Your task to perform on an android device: Open calendar and show me the second week of next month Image 0: 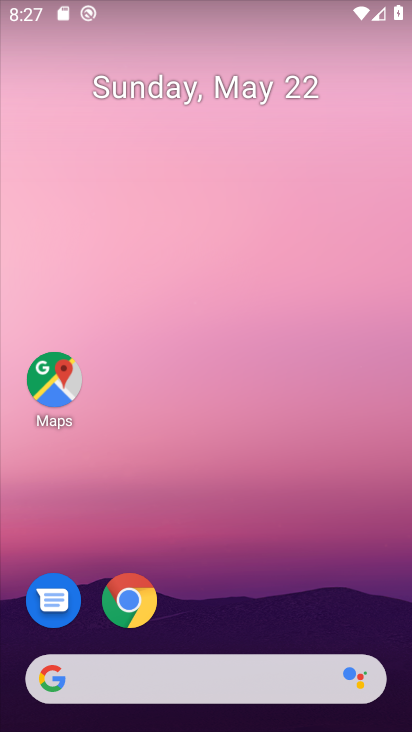
Step 0: drag from (263, 638) to (301, 261)
Your task to perform on an android device: Open calendar and show me the second week of next month Image 1: 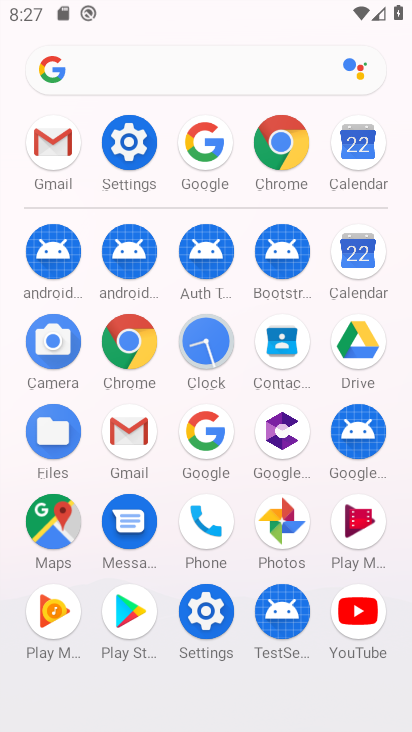
Step 1: click (359, 155)
Your task to perform on an android device: Open calendar and show me the second week of next month Image 2: 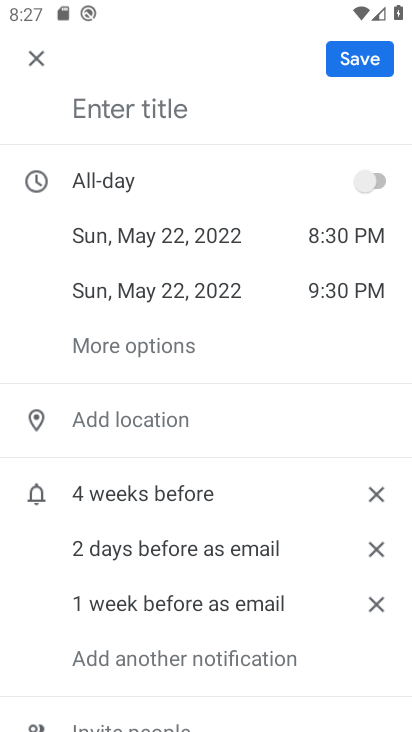
Step 2: click (35, 63)
Your task to perform on an android device: Open calendar and show me the second week of next month Image 3: 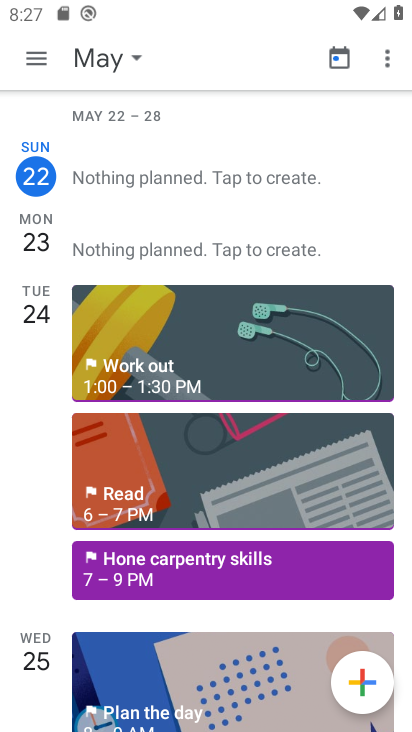
Step 3: click (119, 56)
Your task to perform on an android device: Open calendar and show me the second week of next month Image 4: 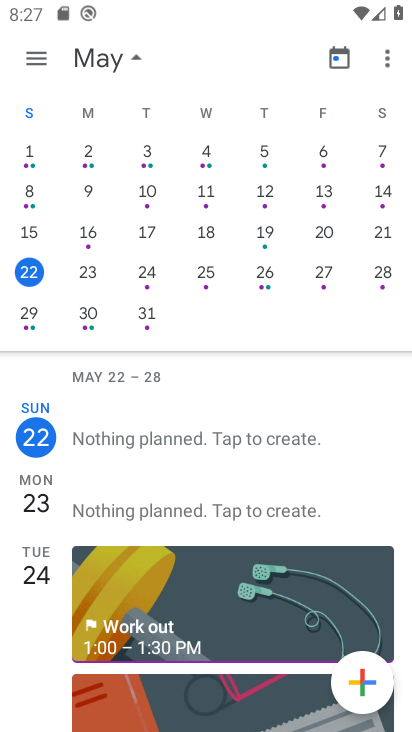
Step 4: drag from (341, 270) to (15, 292)
Your task to perform on an android device: Open calendar and show me the second week of next month Image 5: 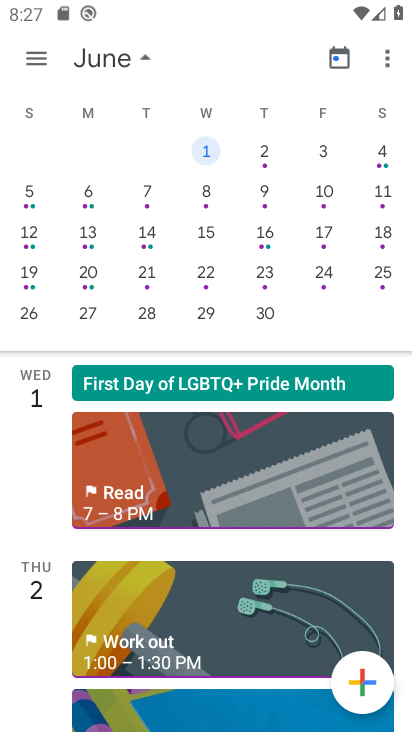
Step 5: click (20, 196)
Your task to perform on an android device: Open calendar and show me the second week of next month Image 6: 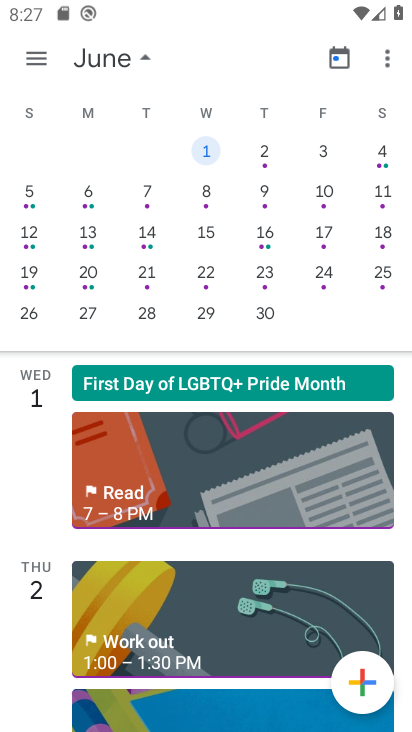
Step 6: click (34, 195)
Your task to perform on an android device: Open calendar and show me the second week of next month Image 7: 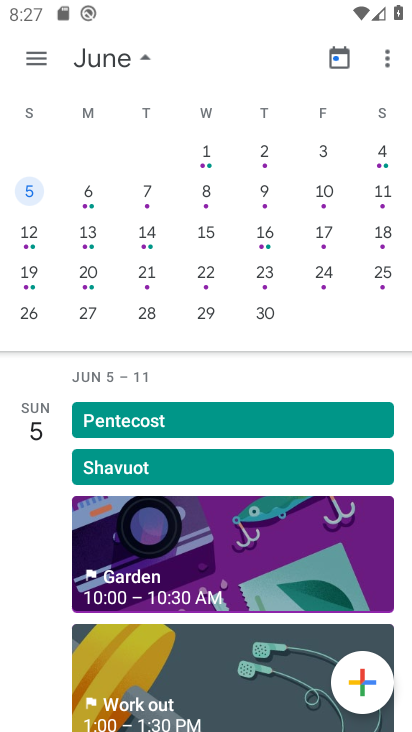
Step 7: task complete